Your task to perform on an android device: turn on javascript in the chrome app Image 0: 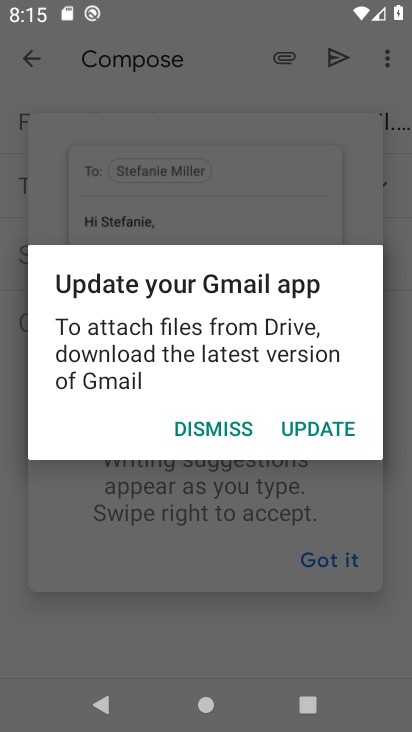
Step 0: click (210, 431)
Your task to perform on an android device: turn on javascript in the chrome app Image 1: 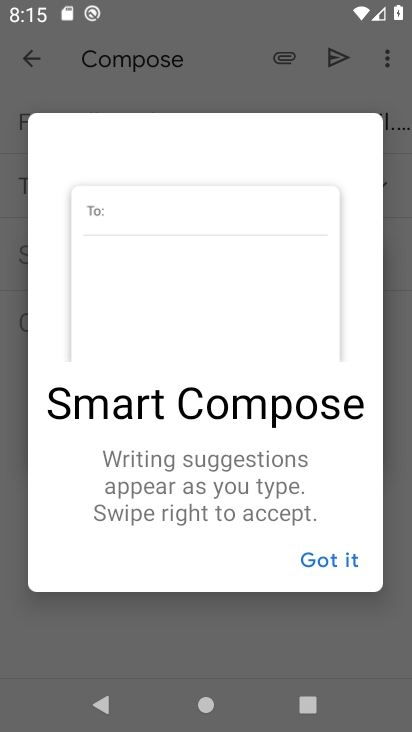
Step 1: press back button
Your task to perform on an android device: turn on javascript in the chrome app Image 2: 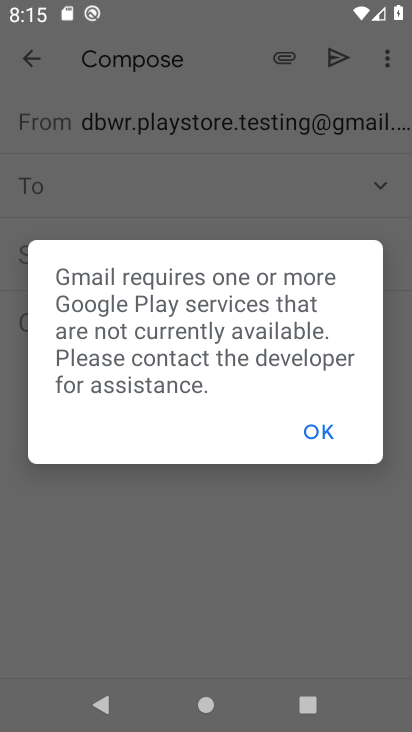
Step 2: press back button
Your task to perform on an android device: turn on javascript in the chrome app Image 3: 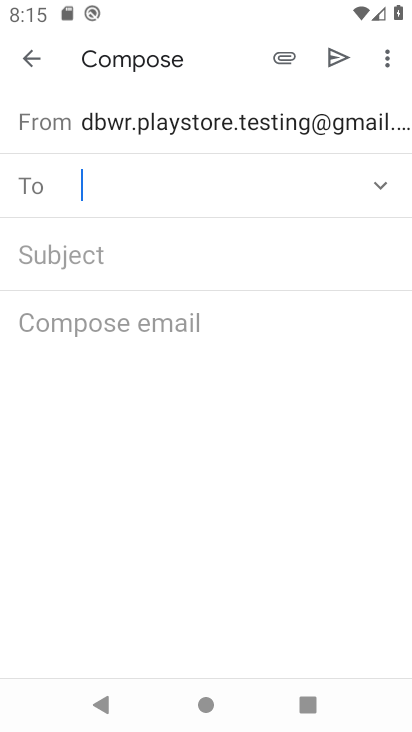
Step 3: press home button
Your task to perform on an android device: turn on javascript in the chrome app Image 4: 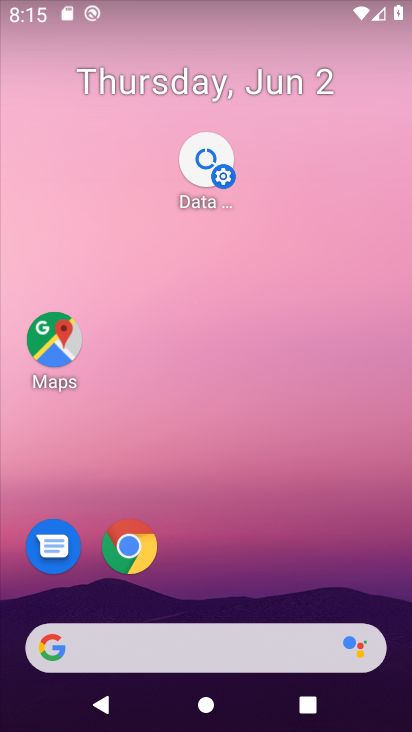
Step 4: drag from (332, 715) to (230, 49)
Your task to perform on an android device: turn on javascript in the chrome app Image 5: 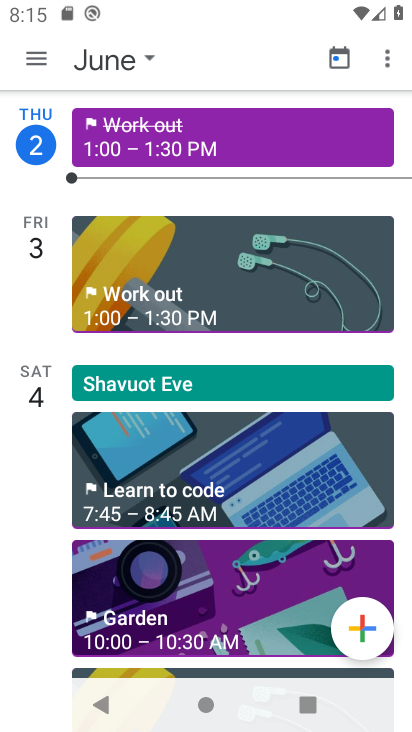
Step 5: press back button
Your task to perform on an android device: turn on javascript in the chrome app Image 6: 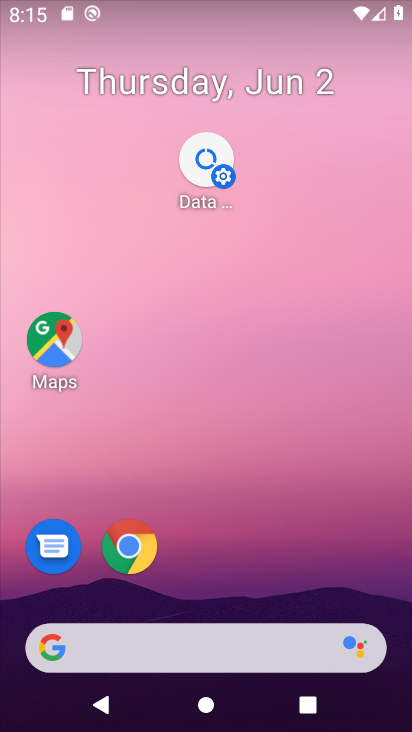
Step 6: drag from (255, 718) to (204, 34)
Your task to perform on an android device: turn on javascript in the chrome app Image 7: 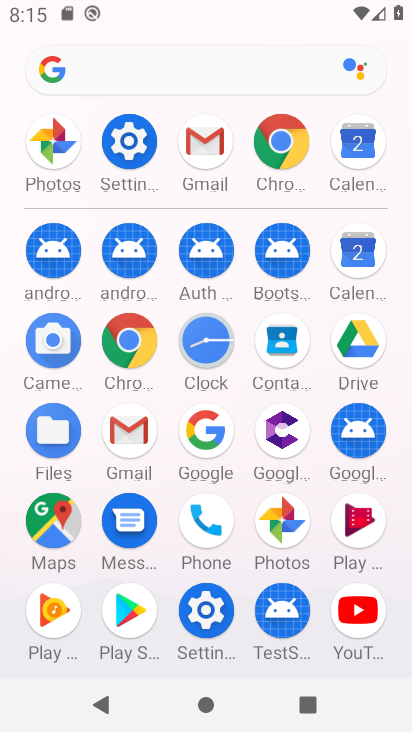
Step 7: click (275, 138)
Your task to perform on an android device: turn on javascript in the chrome app Image 8: 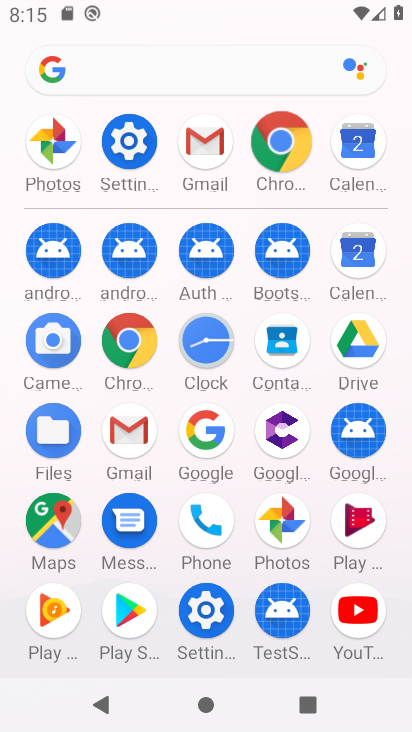
Step 8: click (276, 138)
Your task to perform on an android device: turn on javascript in the chrome app Image 9: 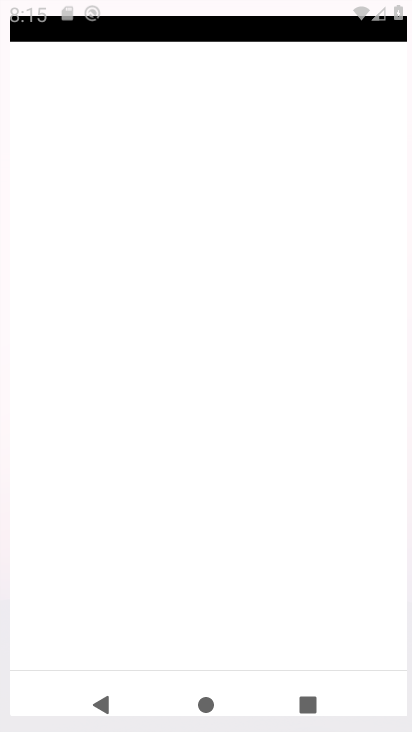
Step 9: click (276, 140)
Your task to perform on an android device: turn on javascript in the chrome app Image 10: 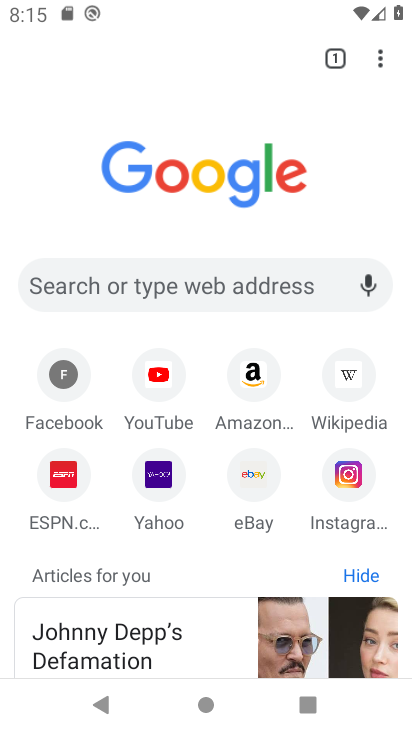
Step 10: drag from (372, 55) to (181, 495)
Your task to perform on an android device: turn on javascript in the chrome app Image 11: 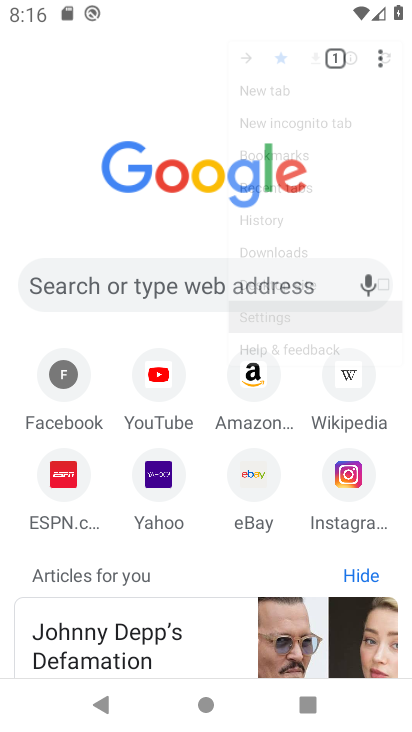
Step 11: click (181, 486)
Your task to perform on an android device: turn on javascript in the chrome app Image 12: 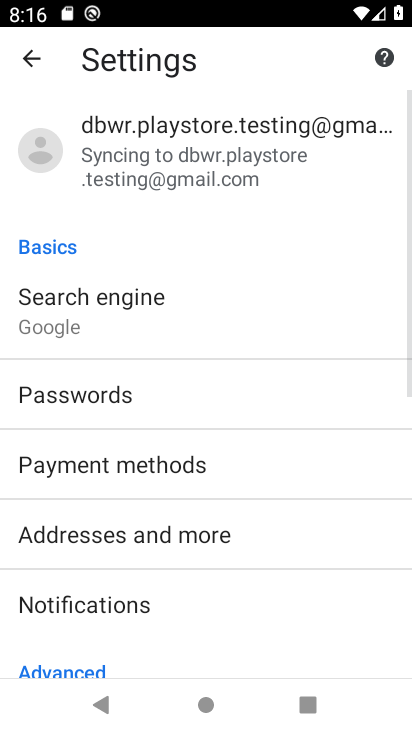
Step 12: drag from (165, 487) to (135, 43)
Your task to perform on an android device: turn on javascript in the chrome app Image 13: 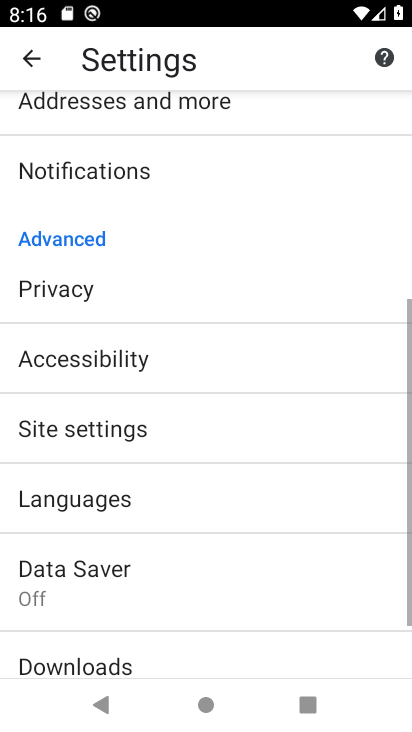
Step 13: drag from (162, 414) to (143, 124)
Your task to perform on an android device: turn on javascript in the chrome app Image 14: 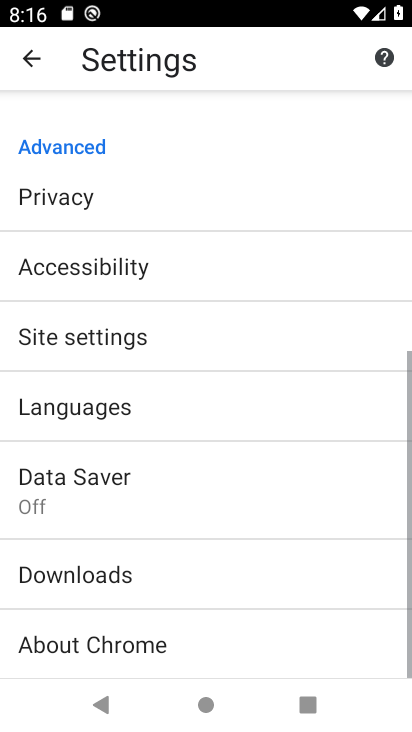
Step 14: drag from (194, 320) to (196, 141)
Your task to perform on an android device: turn on javascript in the chrome app Image 15: 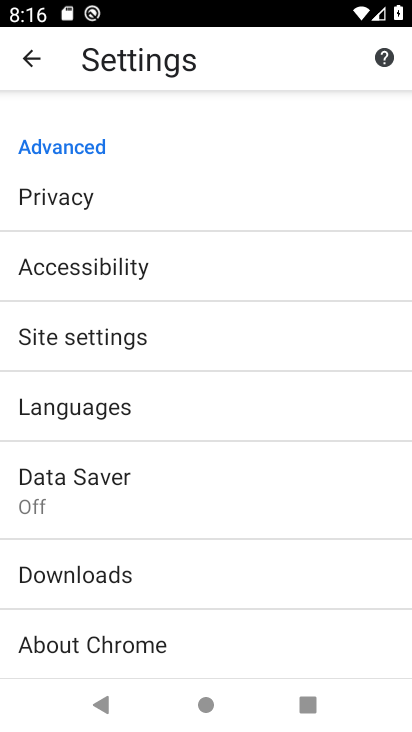
Step 15: click (65, 333)
Your task to perform on an android device: turn on javascript in the chrome app Image 16: 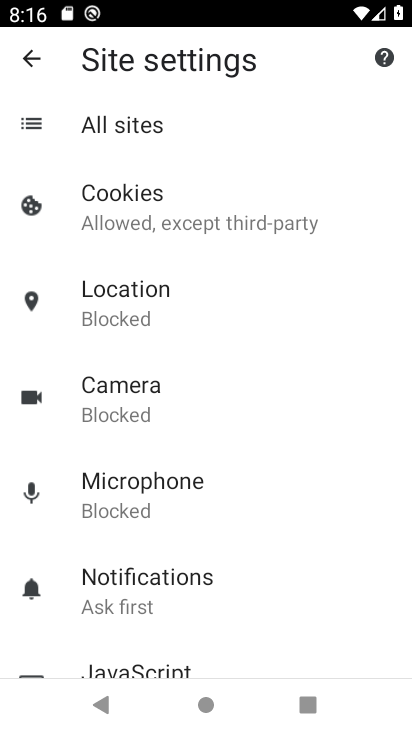
Step 16: drag from (152, 511) to (160, 103)
Your task to perform on an android device: turn on javascript in the chrome app Image 17: 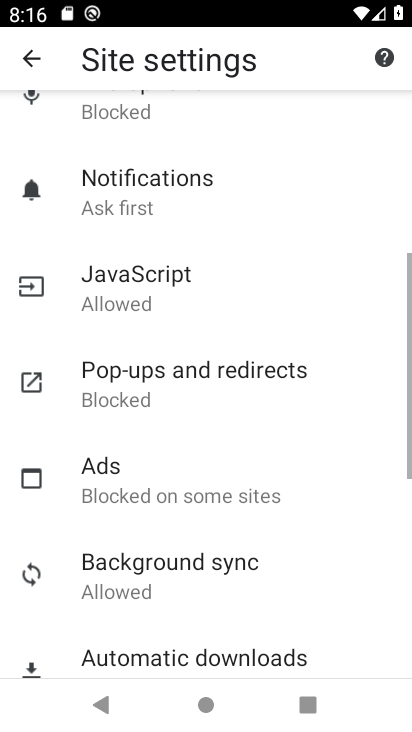
Step 17: drag from (188, 443) to (171, 228)
Your task to perform on an android device: turn on javascript in the chrome app Image 18: 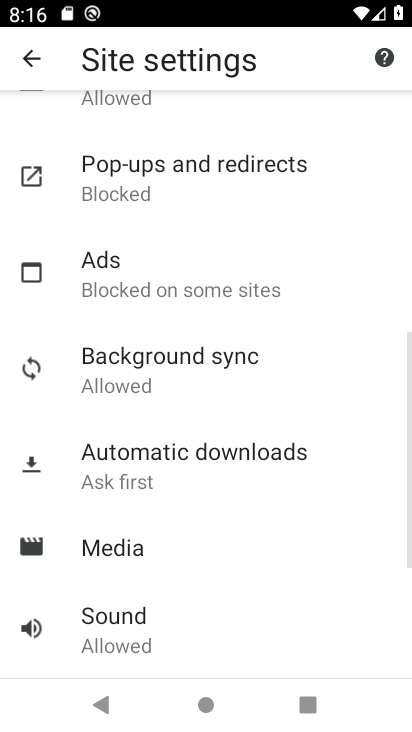
Step 18: drag from (124, 181) to (212, 502)
Your task to perform on an android device: turn on javascript in the chrome app Image 19: 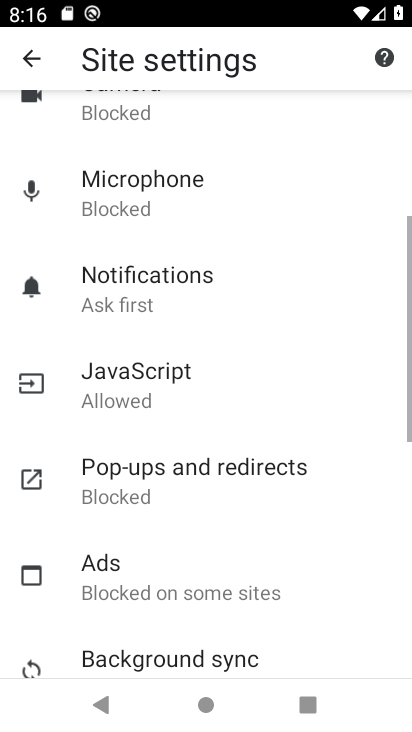
Step 19: drag from (200, 252) to (256, 495)
Your task to perform on an android device: turn on javascript in the chrome app Image 20: 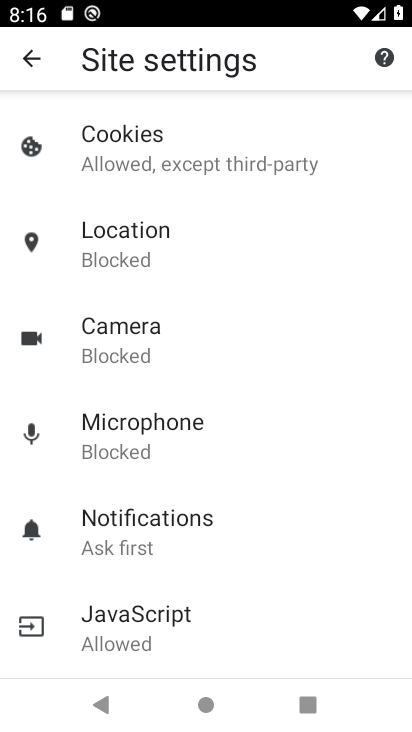
Step 20: click (125, 623)
Your task to perform on an android device: turn on javascript in the chrome app Image 21: 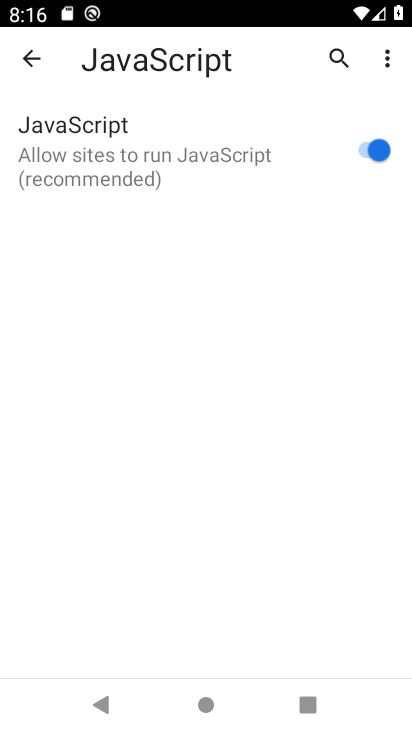
Step 21: task complete